Your task to perform on an android device: Open Google Maps and go to "Timeline" Image 0: 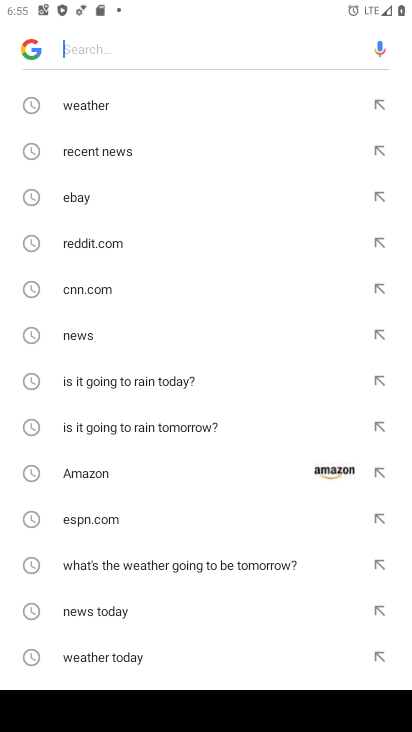
Step 0: press home button
Your task to perform on an android device: Open Google Maps and go to "Timeline" Image 1: 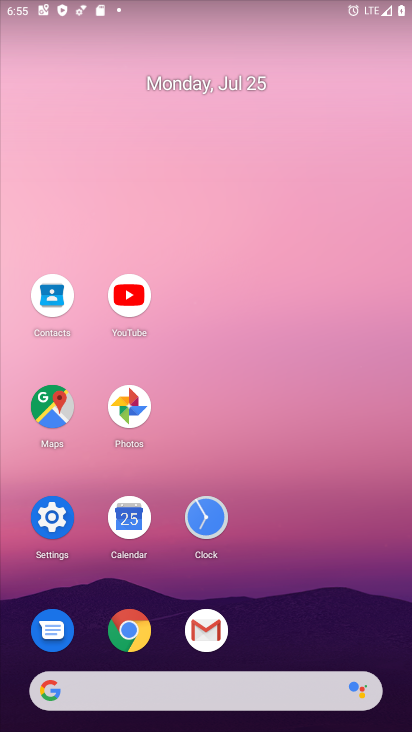
Step 1: click (53, 407)
Your task to perform on an android device: Open Google Maps and go to "Timeline" Image 2: 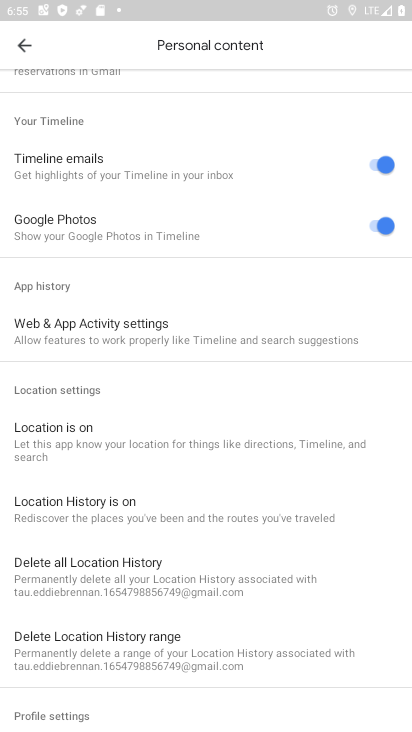
Step 2: click (25, 41)
Your task to perform on an android device: Open Google Maps and go to "Timeline" Image 3: 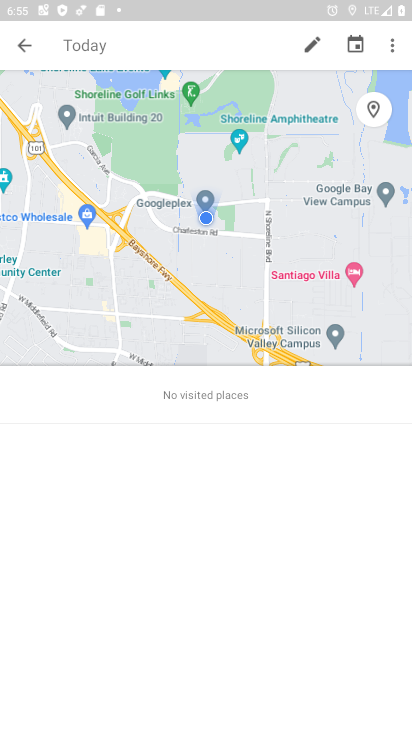
Step 3: task complete